Your task to perform on an android device: Search for the best Nike running shoes on Nike.com Image 0: 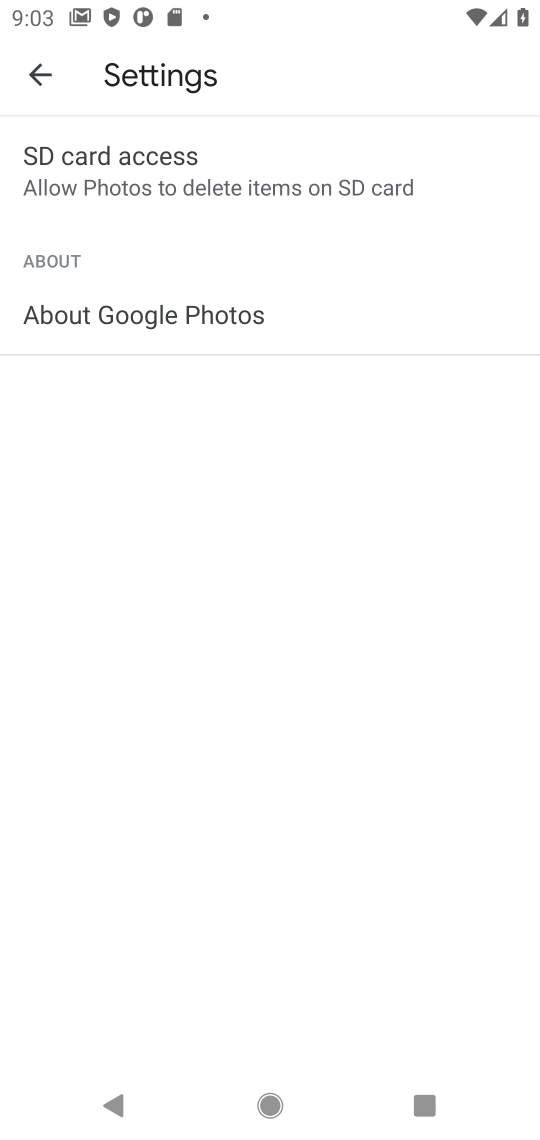
Step 0: press home button
Your task to perform on an android device: Search for the best Nike running shoes on Nike.com Image 1: 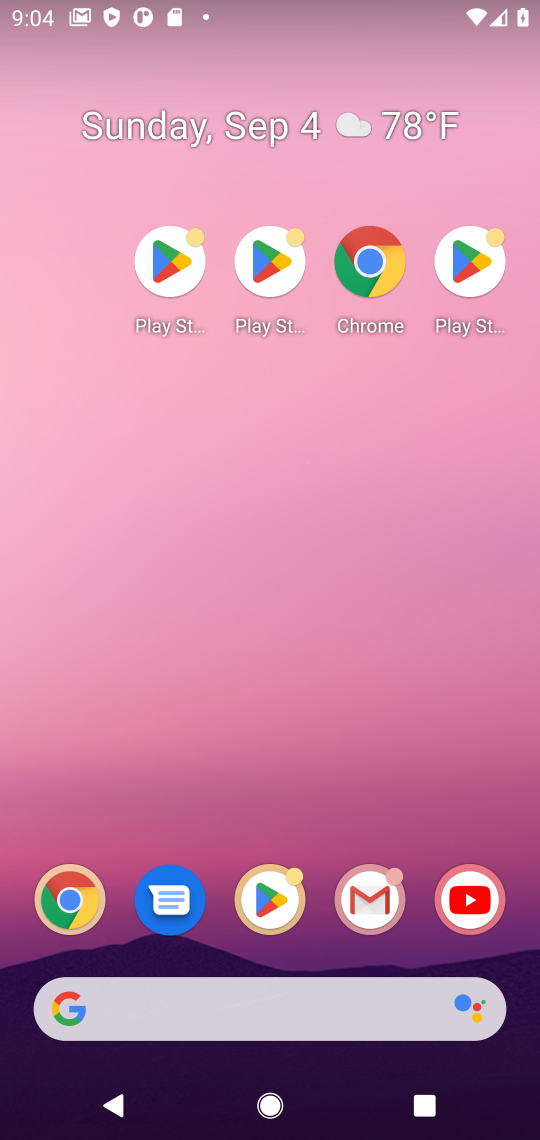
Step 1: drag from (297, 964) to (149, 86)
Your task to perform on an android device: Search for the best Nike running shoes on Nike.com Image 2: 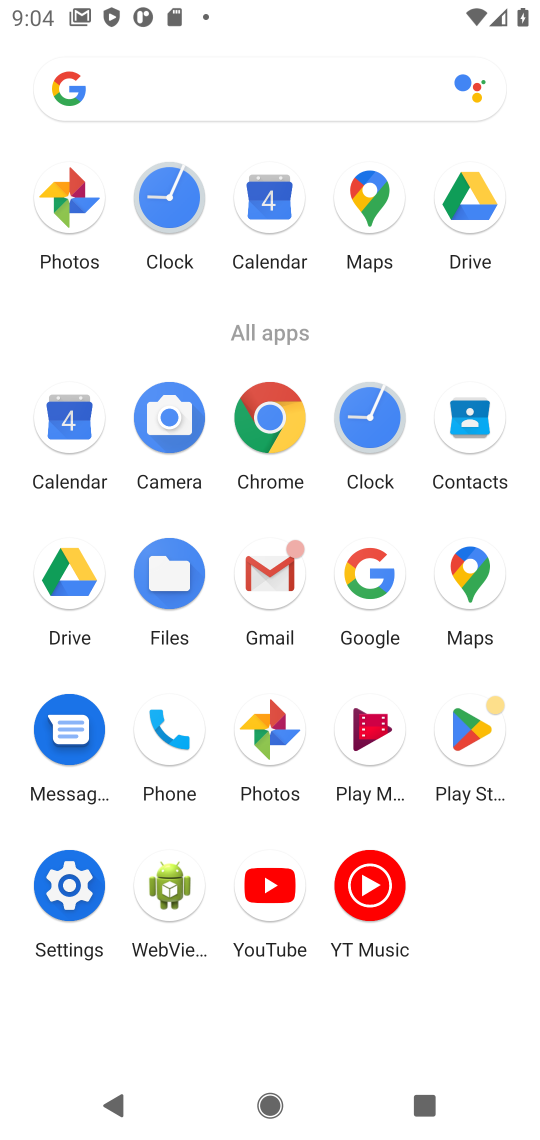
Step 2: click (278, 431)
Your task to perform on an android device: Search for the best Nike running shoes on Nike.com Image 3: 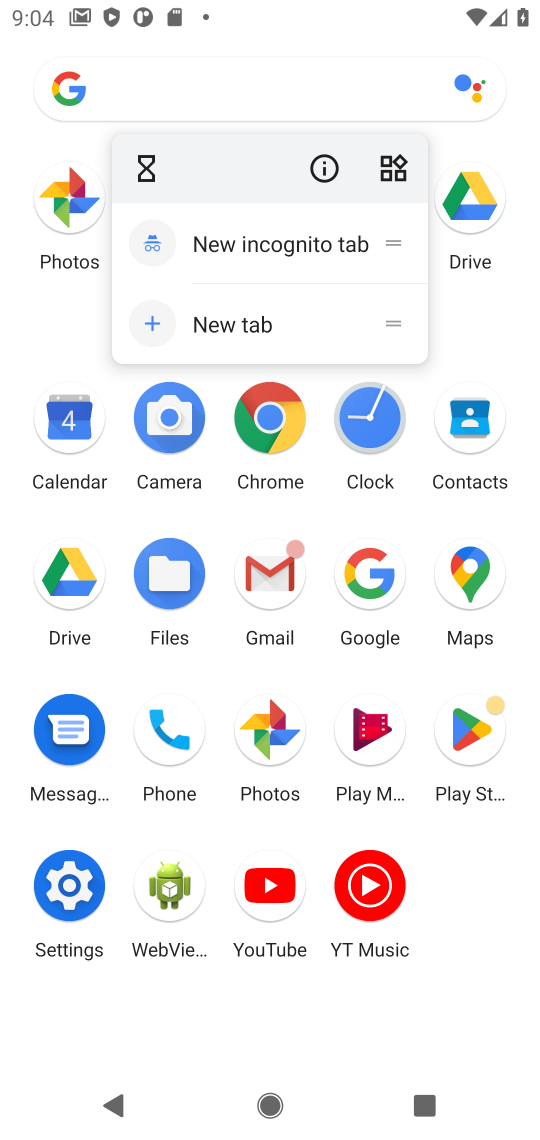
Step 3: click (276, 431)
Your task to perform on an android device: Search for the best Nike running shoes on Nike.com Image 4: 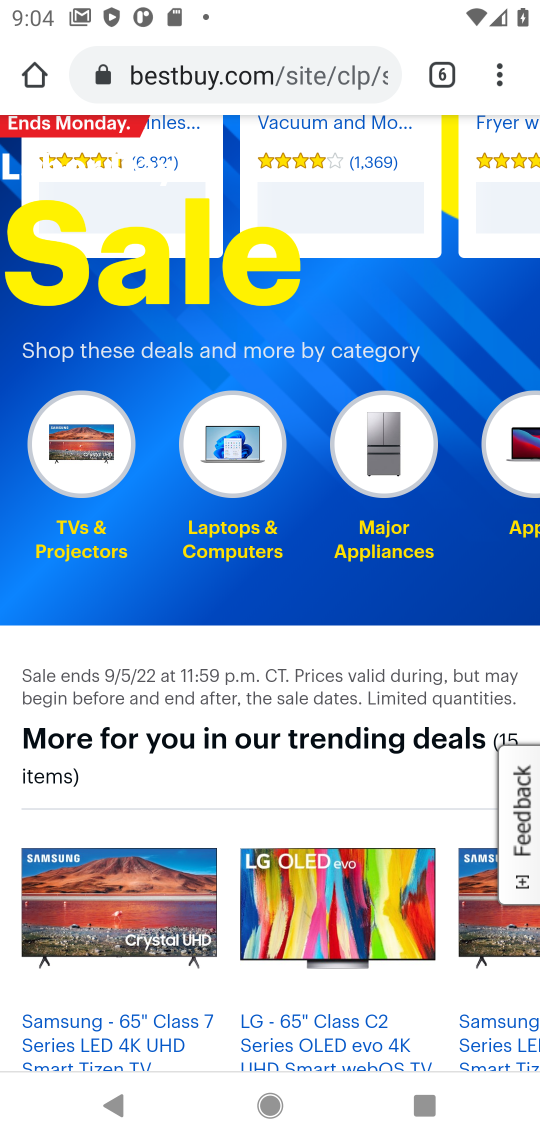
Step 4: click (444, 57)
Your task to perform on an android device: Search for the best Nike running shoes on Nike.com Image 5: 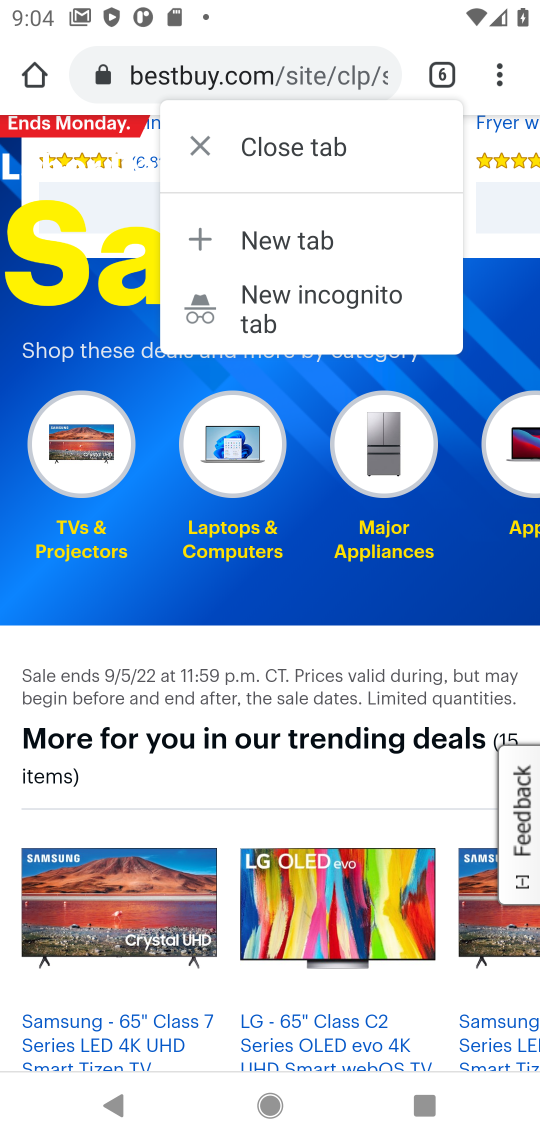
Step 5: click (233, 144)
Your task to perform on an android device: Search for the best Nike running shoes on Nike.com Image 6: 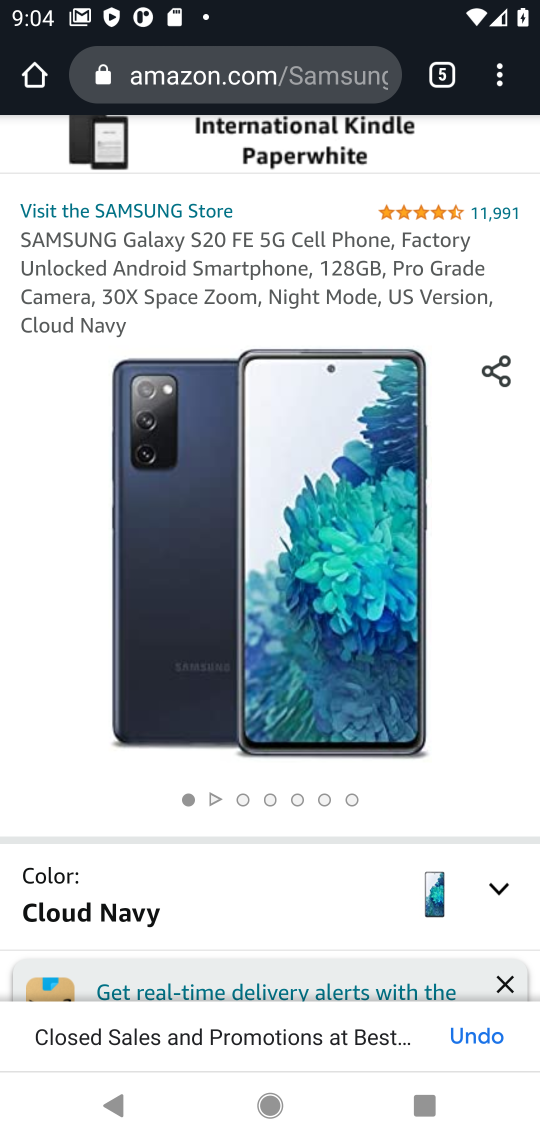
Step 6: click (452, 75)
Your task to perform on an android device: Search for the best Nike running shoes on Nike.com Image 7: 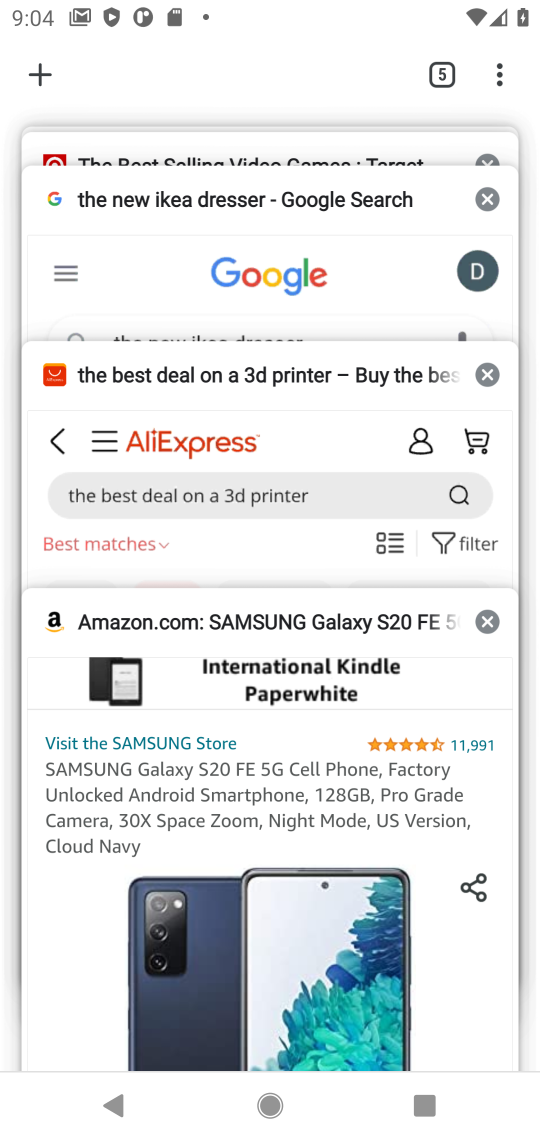
Step 7: click (33, 79)
Your task to perform on an android device: Search for the best Nike running shoes on Nike.com Image 8: 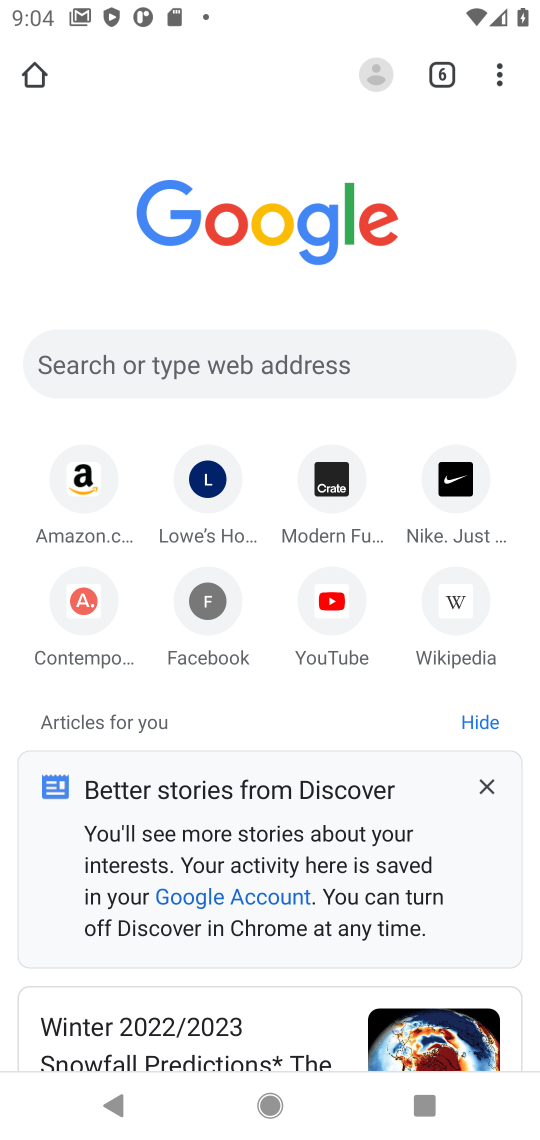
Step 8: click (473, 500)
Your task to perform on an android device: Search for the best Nike running shoes on Nike.com Image 9: 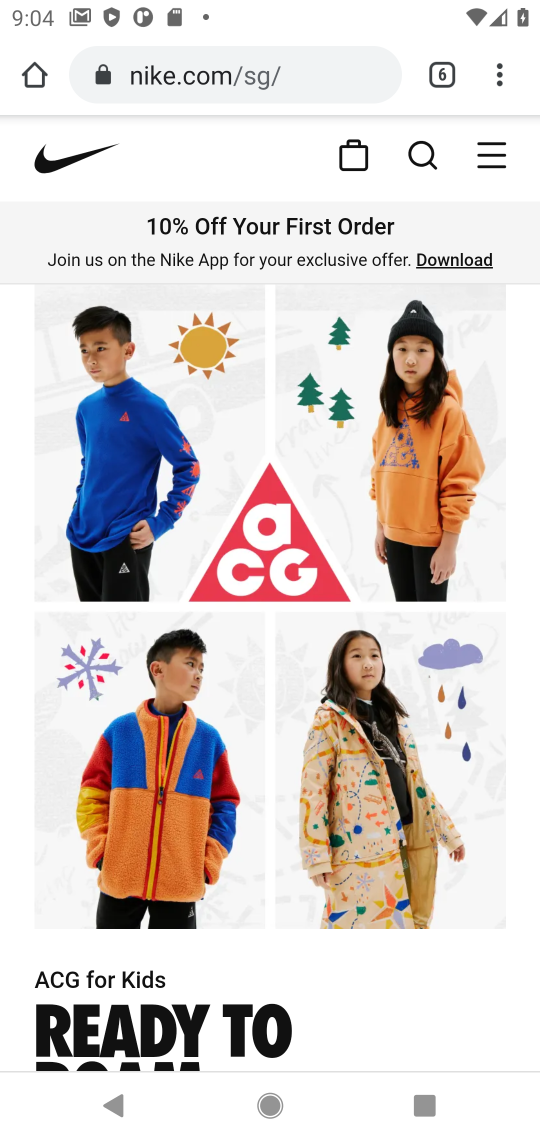
Step 9: click (433, 150)
Your task to perform on an android device: Search for the best Nike running shoes on Nike.com Image 10: 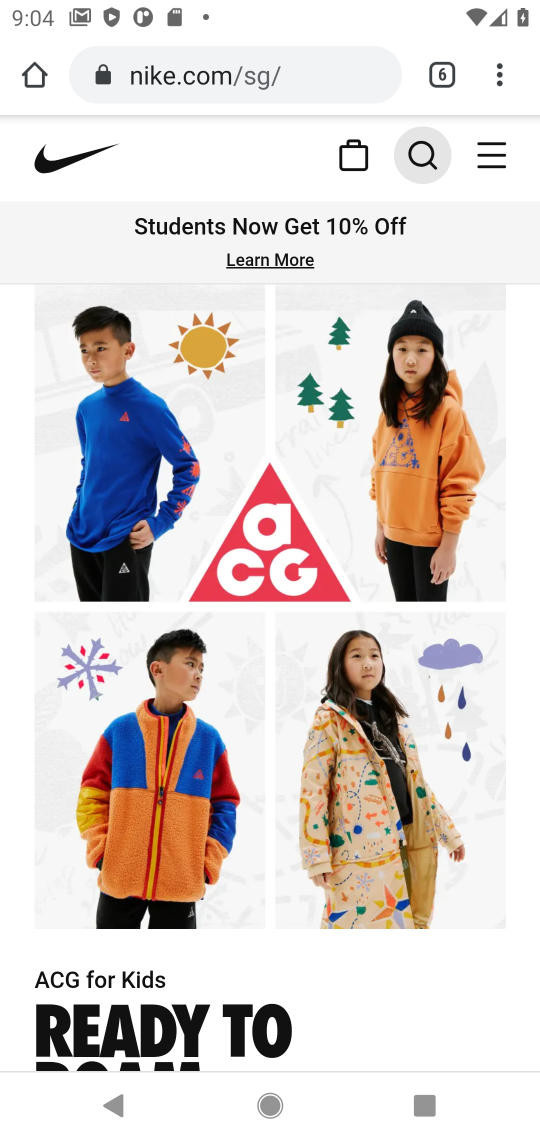
Step 10: click (433, 153)
Your task to perform on an android device: Search for the best Nike running shoes on Nike.com Image 11: 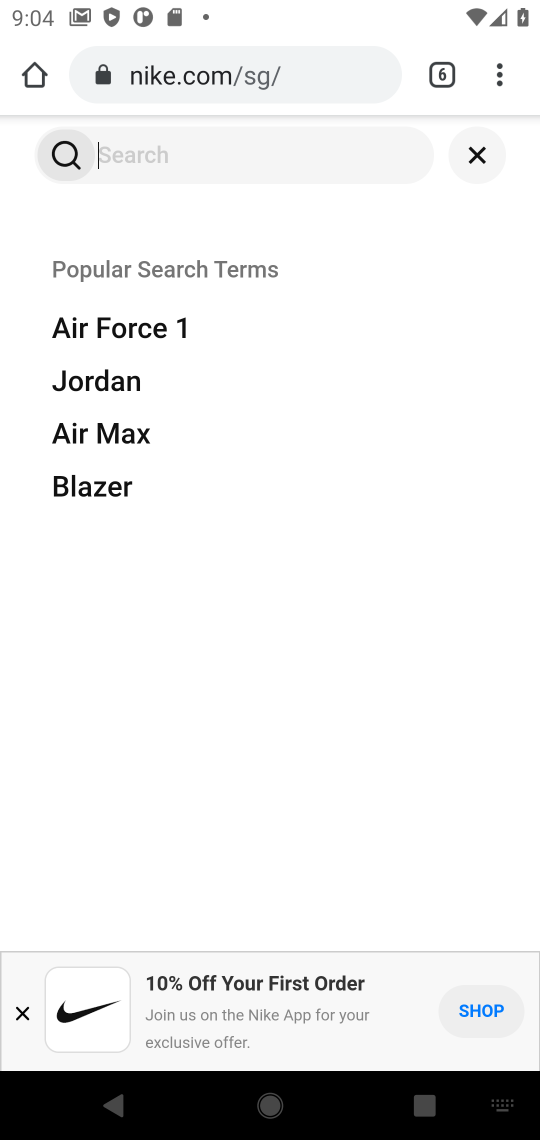
Step 11: type " the best Nike running shoes"
Your task to perform on an android device: Search for the best Nike running shoes on Nike.com Image 12: 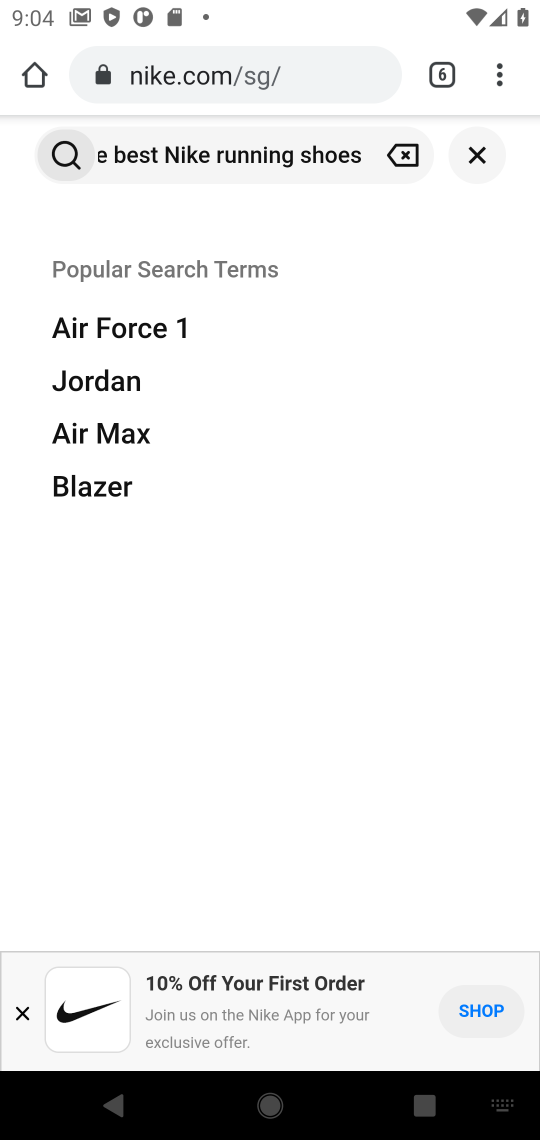
Step 12: click (72, 157)
Your task to perform on an android device: Search for the best Nike running shoes on Nike.com Image 13: 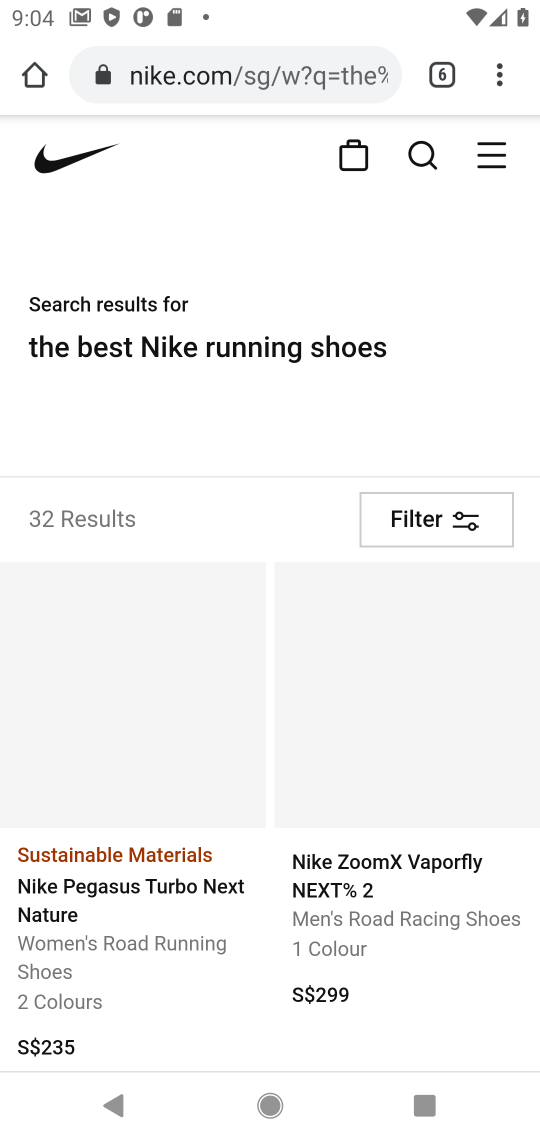
Step 13: task complete